Your task to perform on an android device: Find coffee shops on Maps Image 0: 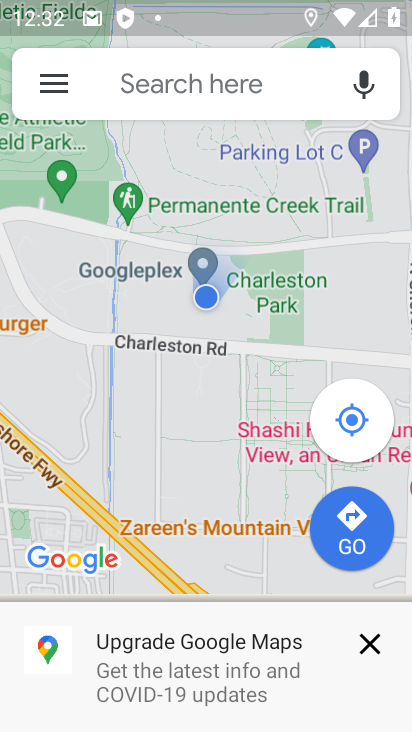
Step 0: press home button
Your task to perform on an android device: Find coffee shops on Maps Image 1: 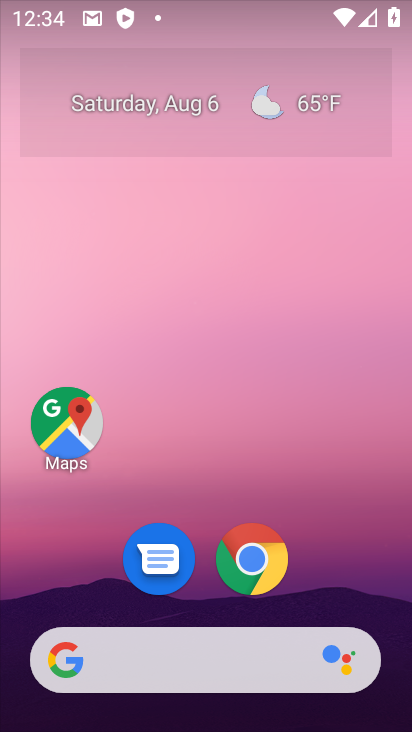
Step 1: click (56, 418)
Your task to perform on an android device: Find coffee shops on Maps Image 2: 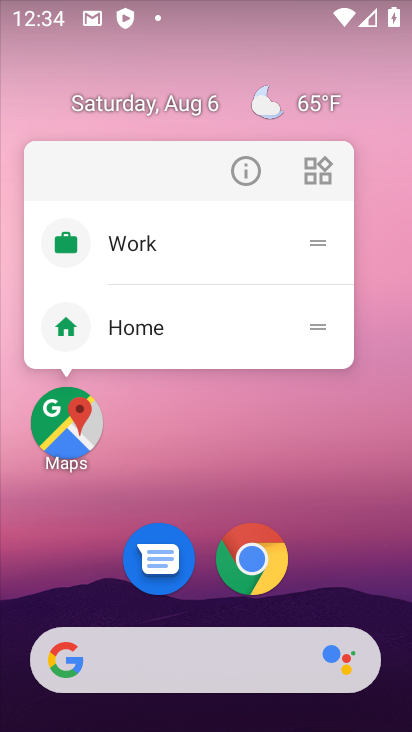
Step 2: click (41, 437)
Your task to perform on an android device: Find coffee shops on Maps Image 3: 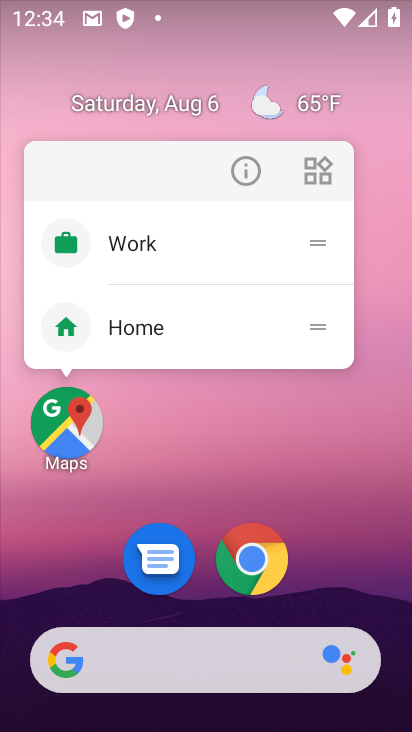
Step 3: click (41, 437)
Your task to perform on an android device: Find coffee shops on Maps Image 4: 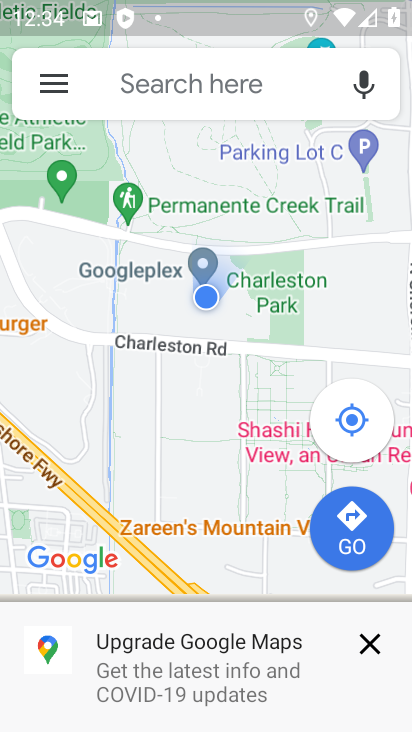
Step 4: click (195, 81)
Your task to perform on an android device: Find coffee shops on Maps Image 5: 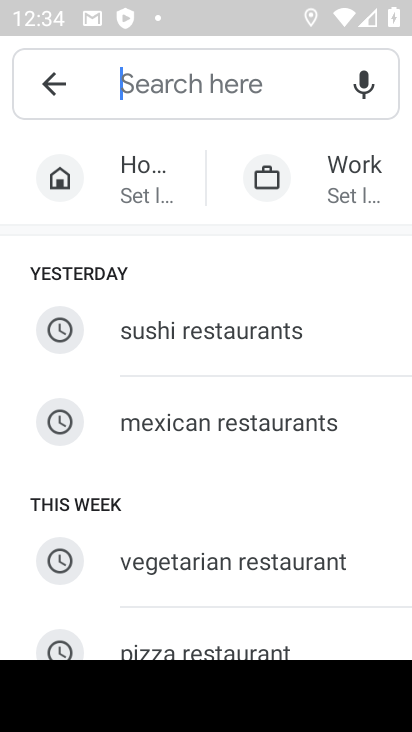
Step 5: type "coffee shop"
Your task to perform on an android device: Find coffee shops on Maps Image 6: 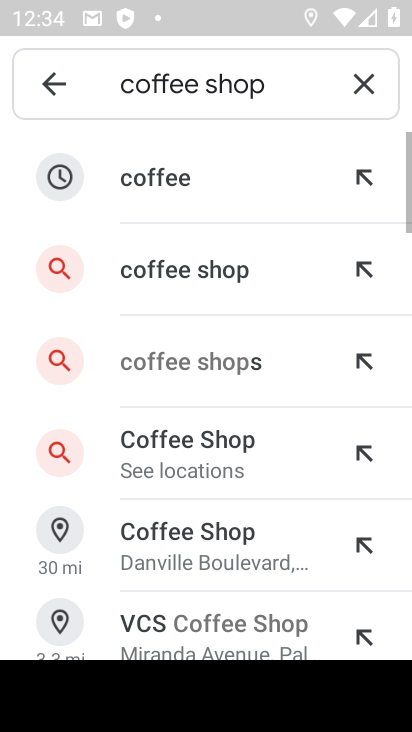
Step 6: click (212, 279)
Your task to perform on an android device: Find coffee shops on Maps Image 7: 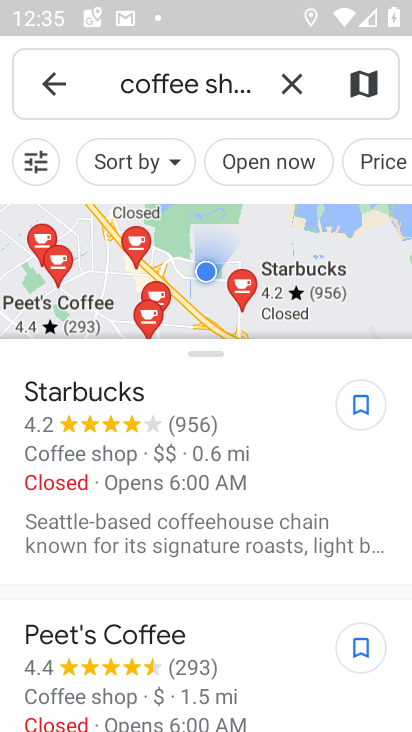
Step 7: task complete